Your task to perform on an android device: change keyboard looks Image 0: 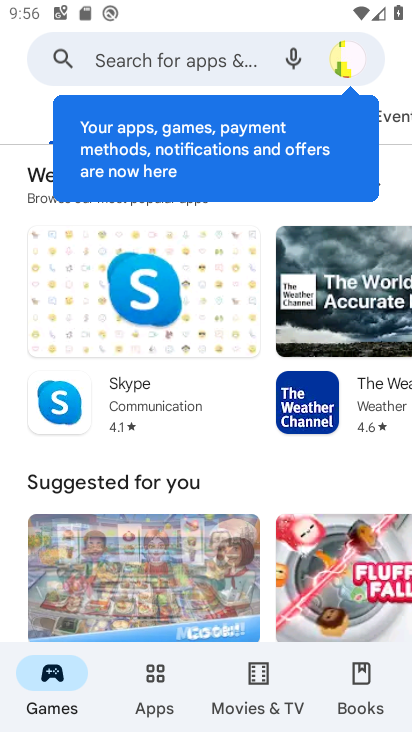
Step 0: press home button
Your task to perform on an android device: change keyboard looks Image 1: 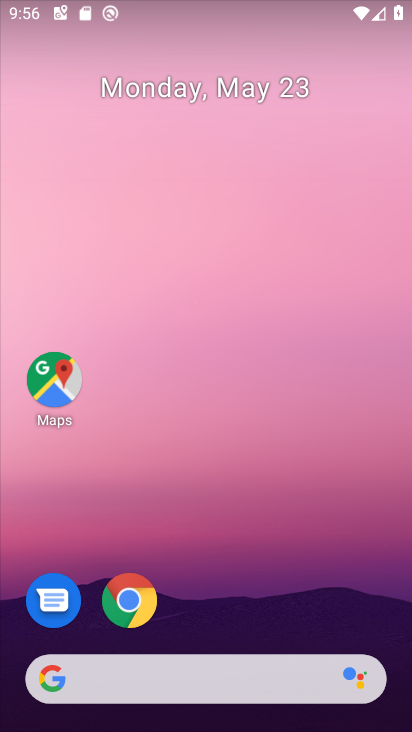
Step 1: drag from (202, 720) to (199, 53)
Your task to perform on an android device: change keyboard looks Image 2: 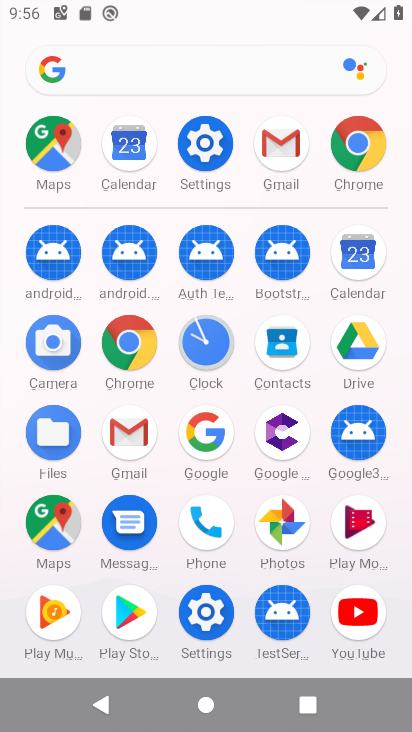
Step 2: click (200, 148)
Your task to perform on an android device: change keyboard looks Image 3: 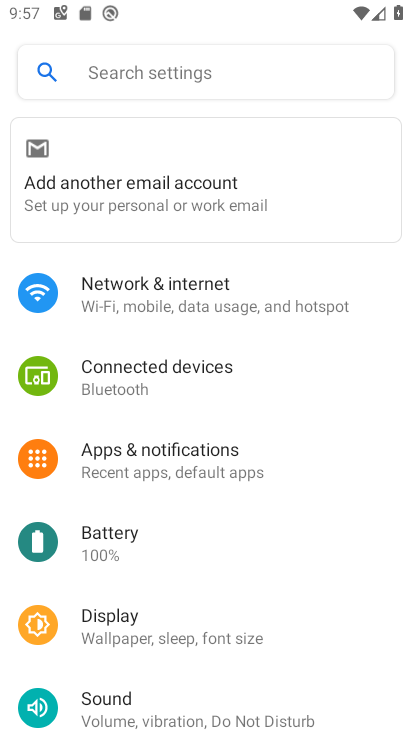
Step 3: drag from (147, 697) to (141, 262)
Your task to perform on an android device: change keyboard looks Image 4: 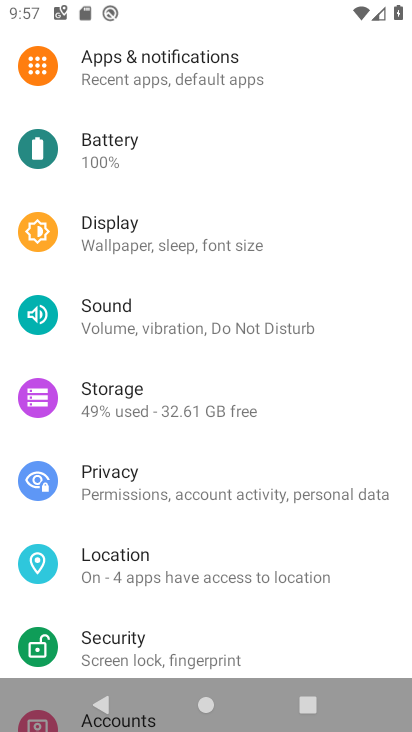
Step 4: drag from (162, 649) to (163, 248)
Your task to perform on an android device: change keyboard looks Image 5: 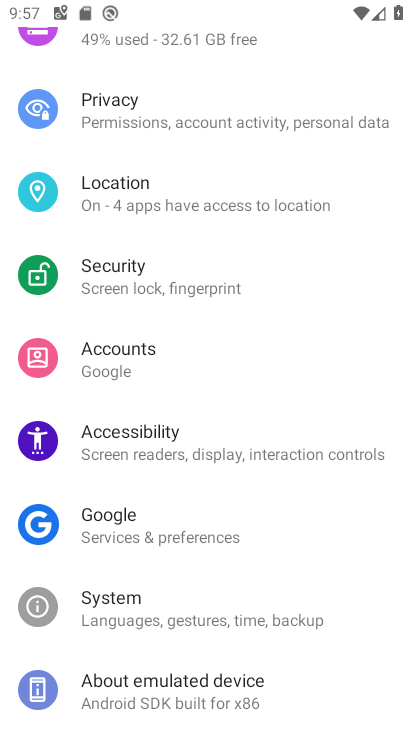
Step 5: click (134, 614)
Your task to perform on an android device: change keyboard looks Image 6: 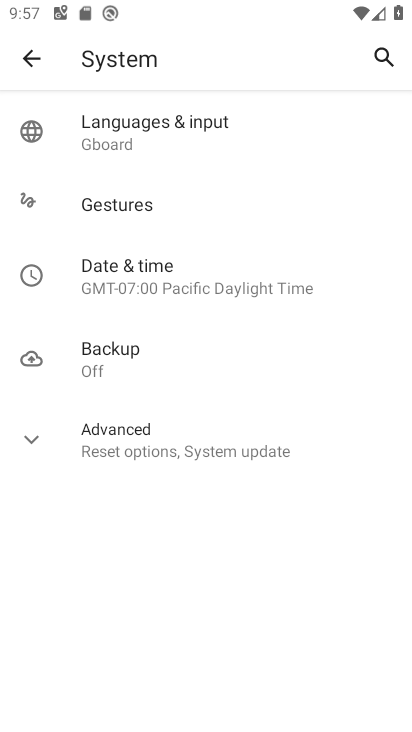
Step 6: click (115, 130)
Your task to perform on an android device: change keyboard looks Image 7: 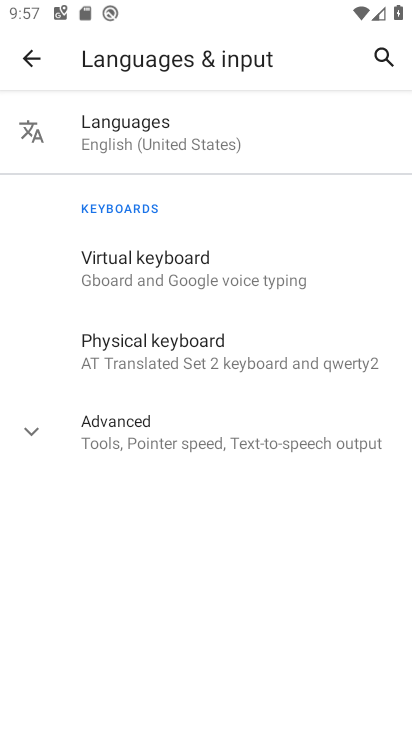
Step 7: click (158, 272)
Your task to perform on an android device: change keyboard looks Image 8: 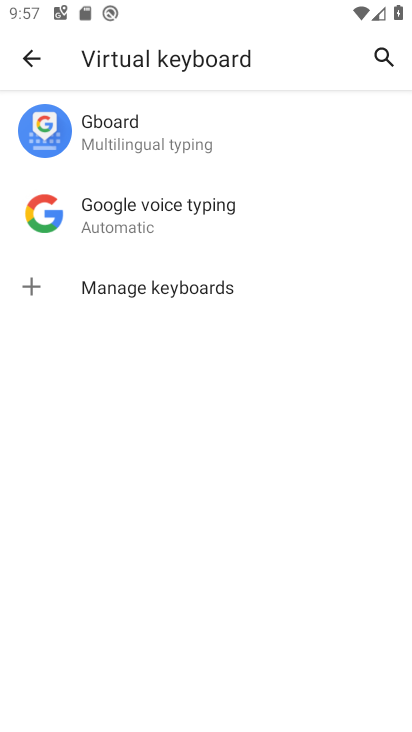
Step 8: click (106, 127)
Your task to perform on an android device: change keyboard looks Image 9: 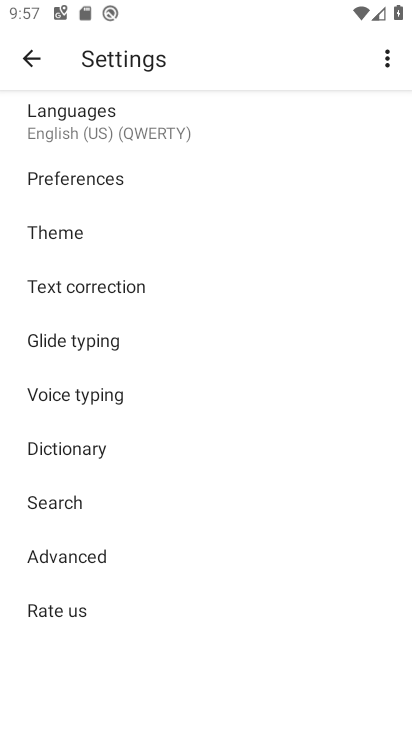
Step 9: click (63, 232)
Your task to perform on an android device: change keyboard looks Image 10: 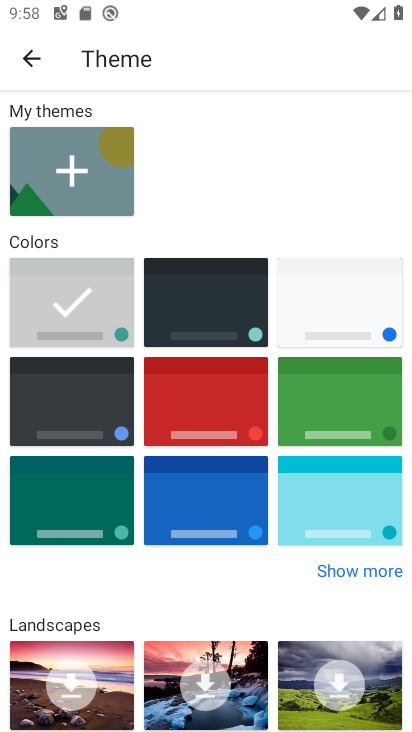
Step 10: click (220, 315)
Your task to perform on an android device: change keyboard looks Image 11: 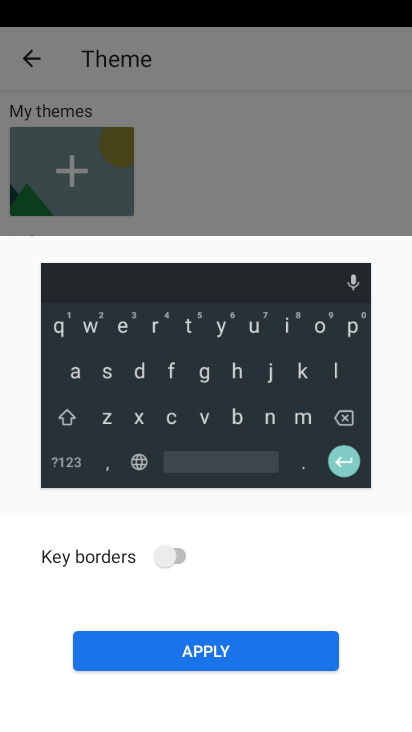
Step 11: click (179, 552)
Your task to perform on an android device: change keyboard looks Image 12: 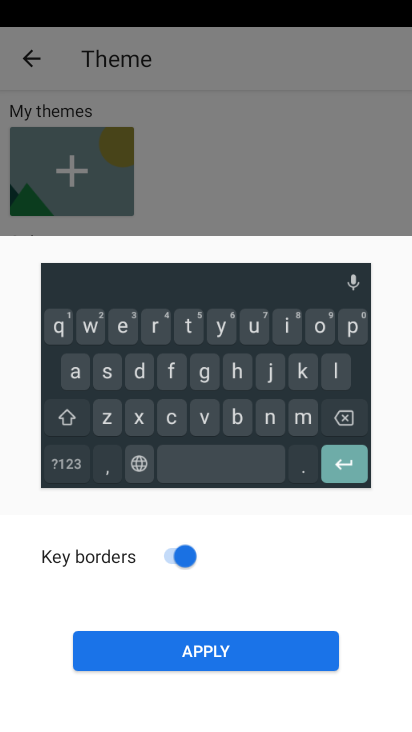
Step 12: click (226, 645)
Your task to perform on an android device: change keyboard looks Image 13: 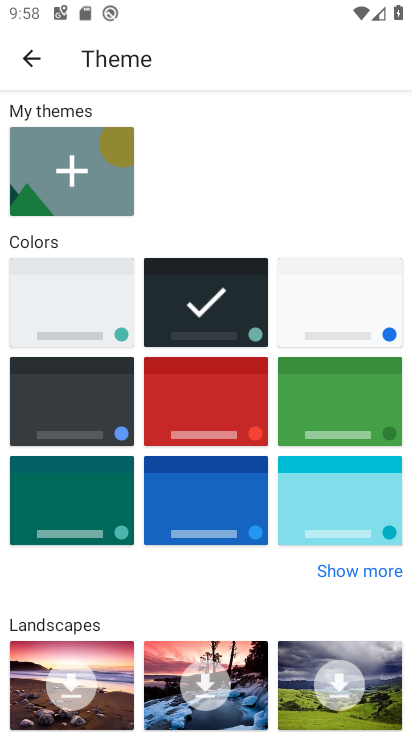
Step 13: task complete